Your task to perform on an android device: Open eBay Image 0: 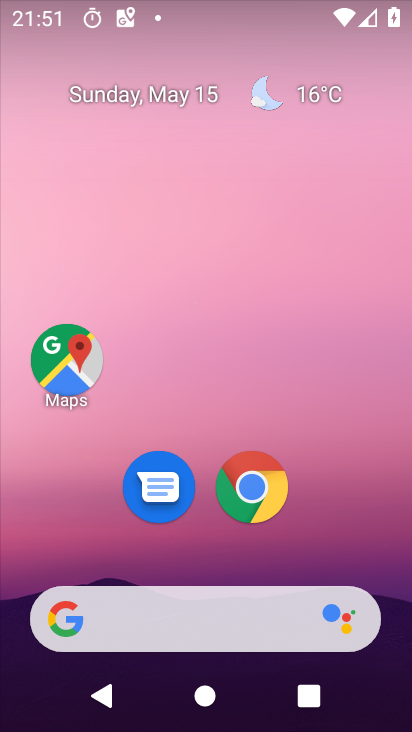
Step 0: click (253, 489)
Your task to perform on an android device: Open eBay Image 1: 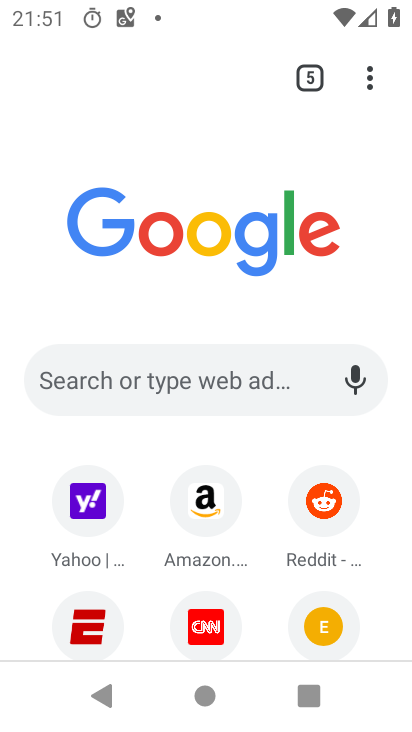
Step 1: click (216, 387)
Your task to perform on an android device: Open eBay Image 2: 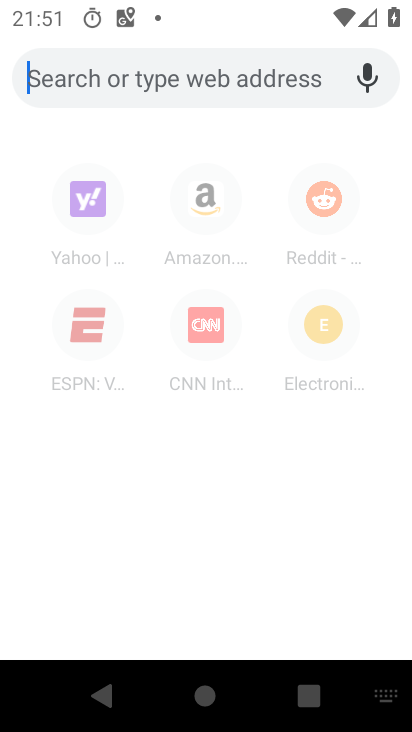
Step 2: type "eBay"
Your task to perform on an android device: Open eBay Image 3: 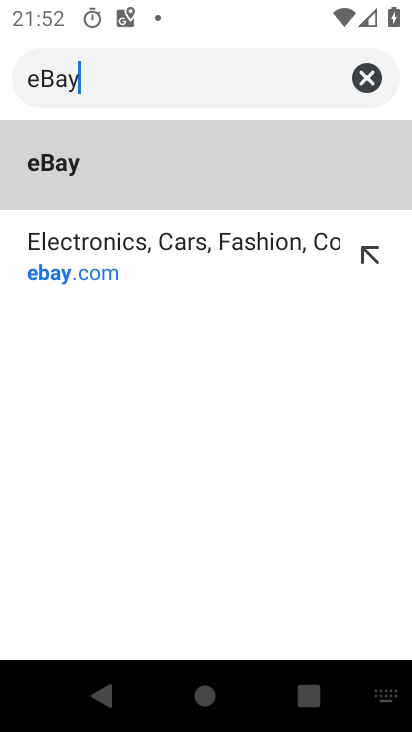
Step 3: click (27, 161)
Your task to perform on an android device: Open eBay Image 4: 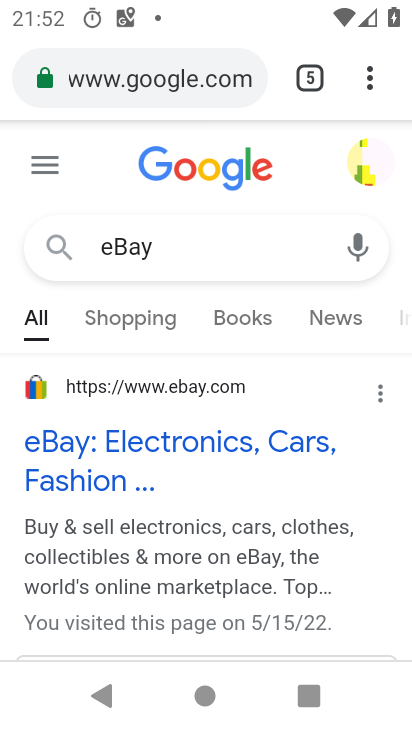
Step 4: task complete